Your task to perform on an android device: turn off javascript in the chrome app Image 0: 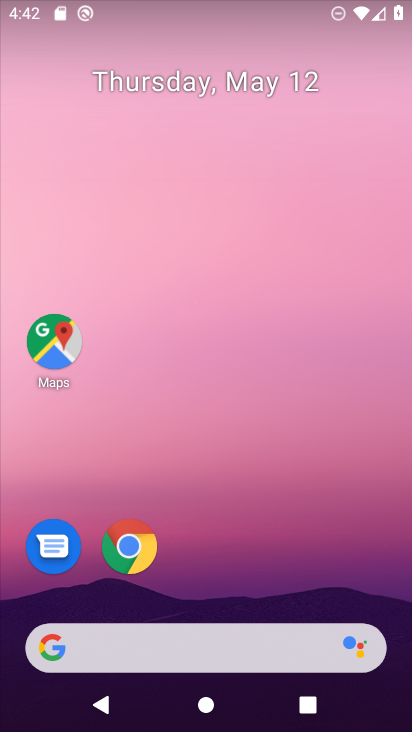
Step 0: drag from (331, 596) to (356, 163)
Your task to perform on an android device: turn off javascript in the chrome app Image 1: 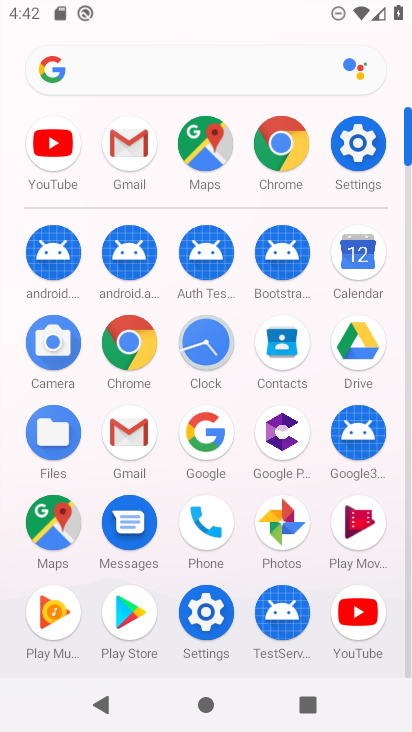
Step 1: click (285, 133)
Your task to perform on an android device: turn off javascript in the chrome app Image 2: 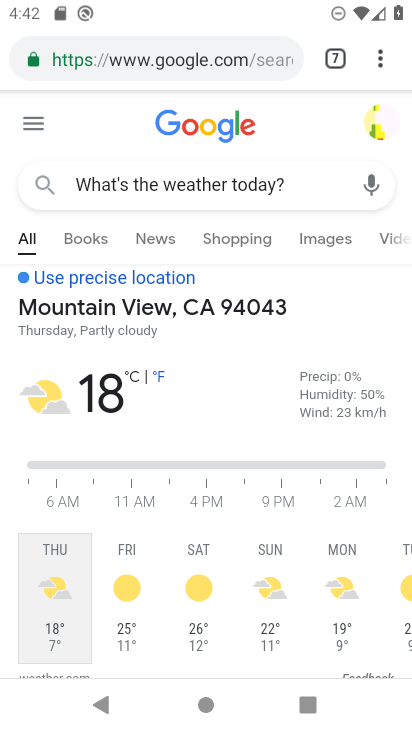
Step 2: click (370, 53)
Your task to perform on an android device: turn off javascript in the chrome app Image 3: 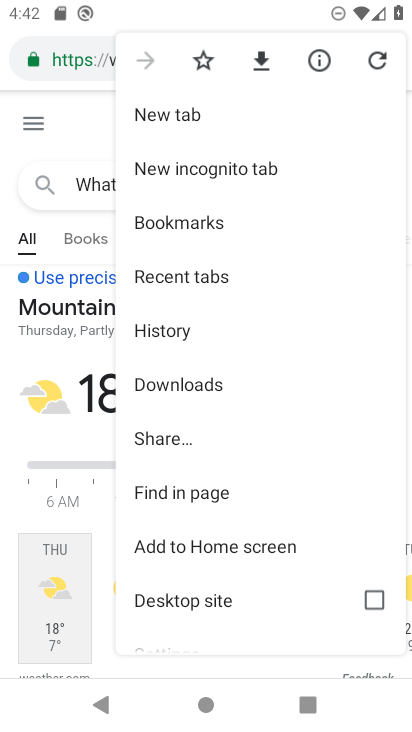
Step 3: drag from (232, 572) to (297, 248)
Your task to perform on an android device: turn off javascript in the chrome app Image 4: 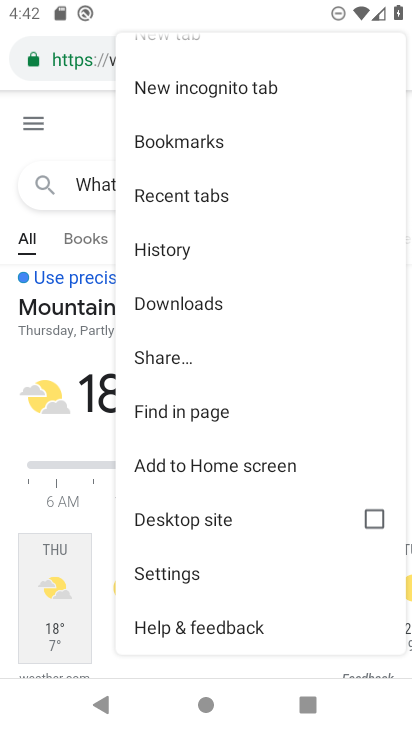
Step 4: click (179, 572)
Your task to perform on an android device: turn off javascript in the chrome app Image 5: 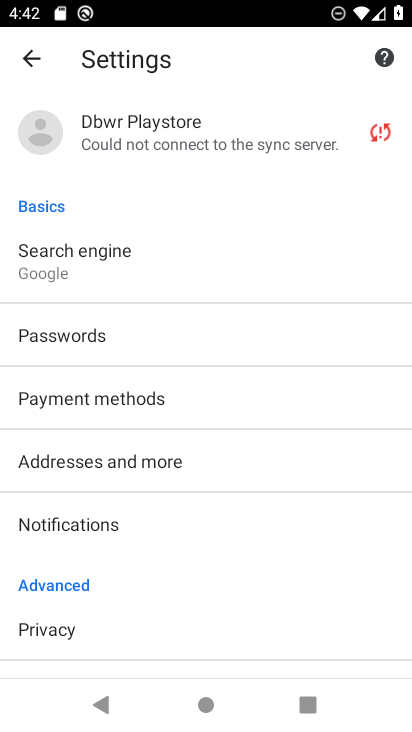
Step 5: drag from (175, 586) to (238, 331)
Your task to perform on an android device: turn off javascript in the chrome app Image 6: 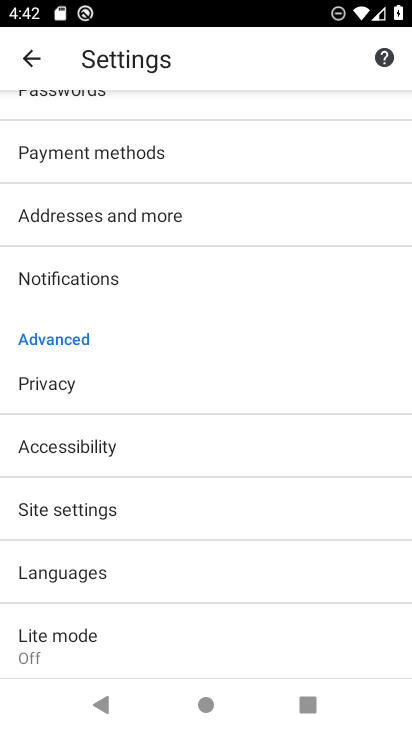
Step 6: click (110, 512)
Your task to perform on an android device: turn off javascript in the chrome app Image 7: 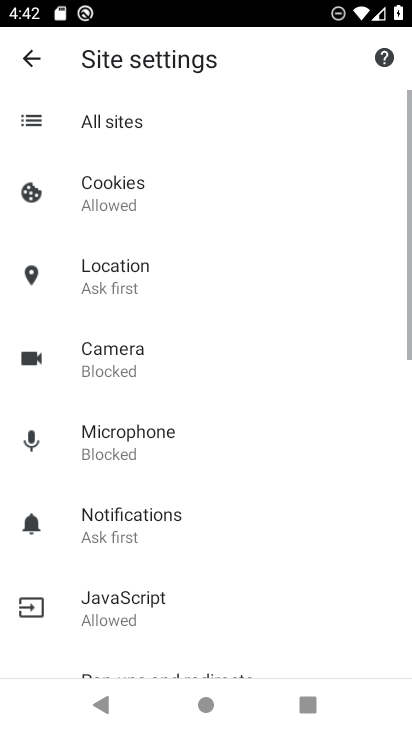
Step 7: drag from (204, 606) to (203, 554)
Your task to perform on an android device: turn off javascript in the chrome app Image 8: 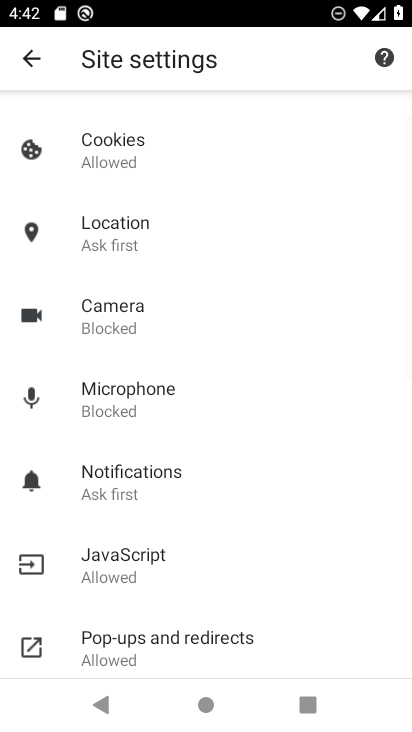
Step 8: click (136, 546)
Your task to perform on an android device: turn off javascript in the chrome app Image 9: 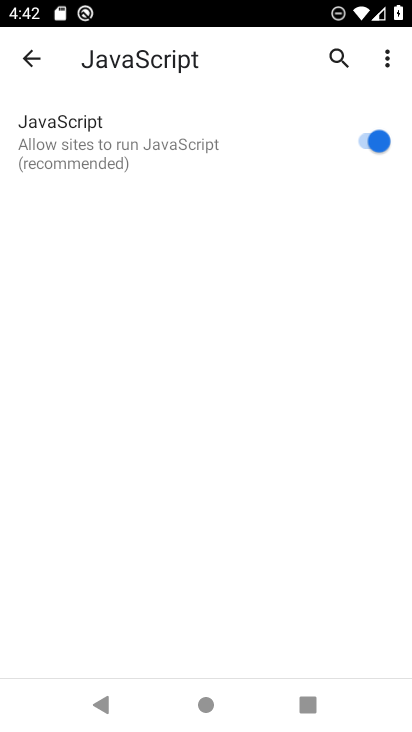
Step 9: click (365, 129)
Your task to perform on an android device: turn off javascript in the chrome app Image 10: 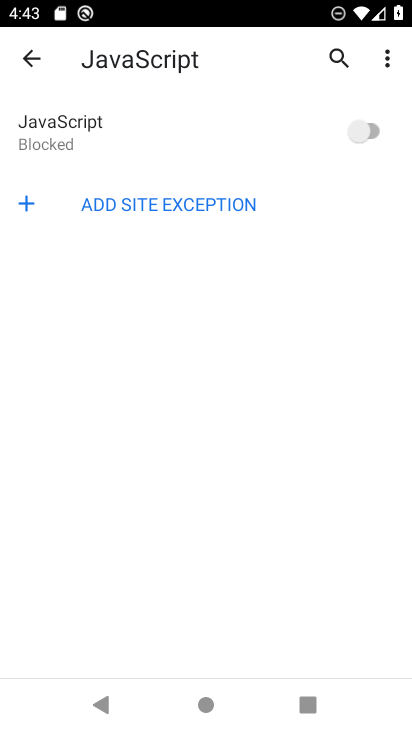
Step 10: task complete